Your task to perform on an android device: remove spam from my inbox in the gmail app Image 0: 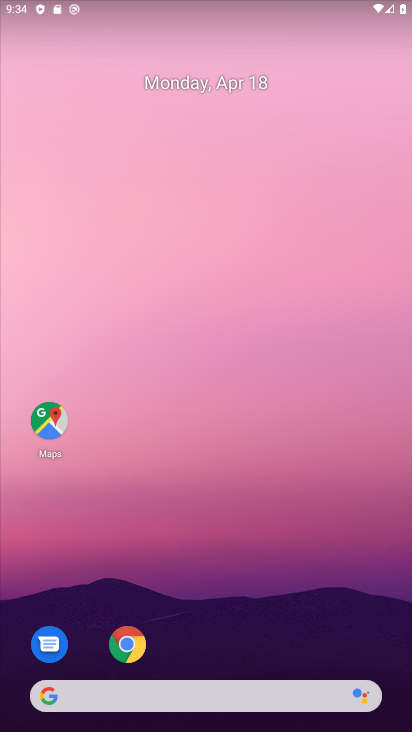
Step 0: drag from (211, 653) to (364, 40)
Your task to perform on an android device: remove spam from my inbox in the gmail app Image 1: 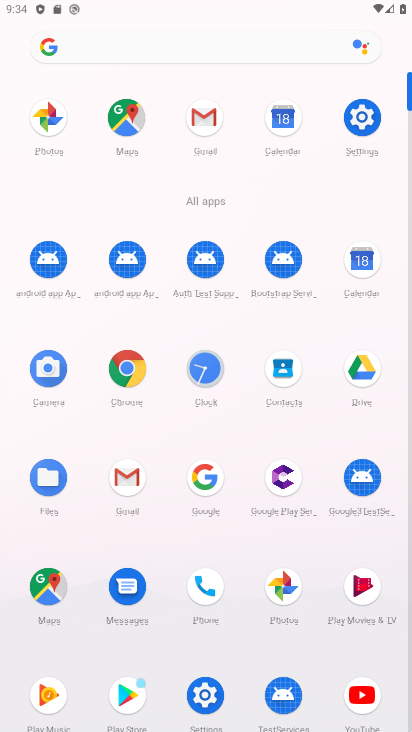
Step 1: click (122, 480)
Your task to perform on an android device: remove spam from my inbox in the gmail app Image 2: 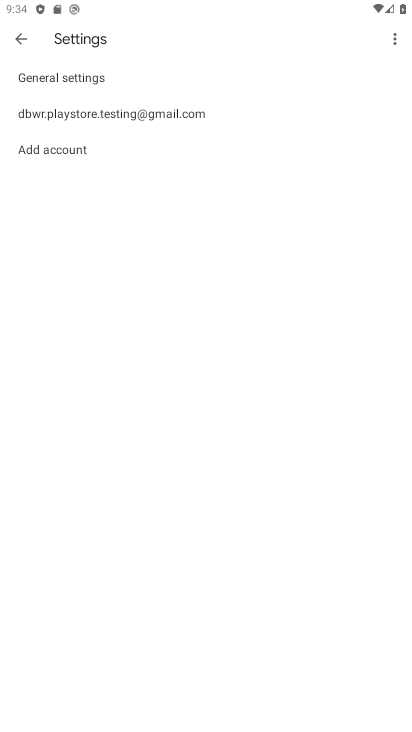
Step 2: click (21, 35)
Your task to perform on an android device: remove spam from my inbox in the gmail app Image 3: 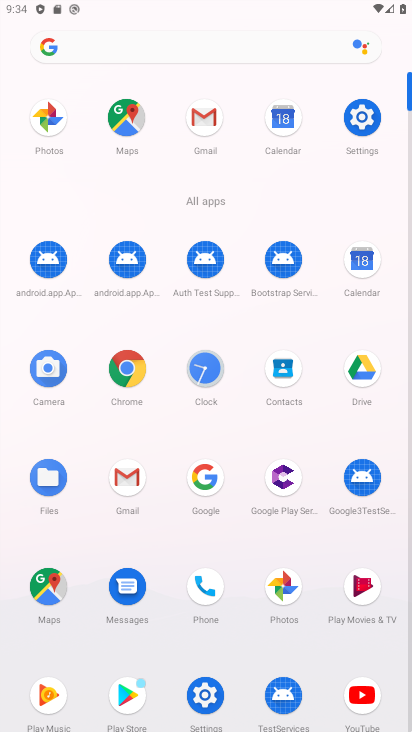
Step 3: click (128, 481)
Your task to perform on an android device: remove spam from my inbox in the gmail app Image 4: 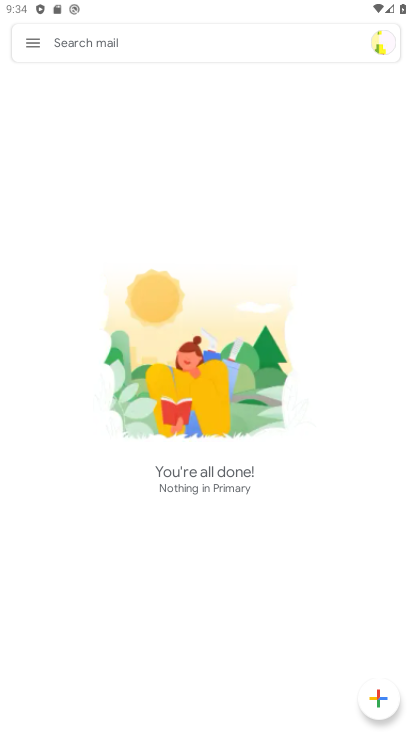
Step 4: click (36, 40)
Your task to perform on an android device: remove spam from my inbox in the gmail app Image 5: 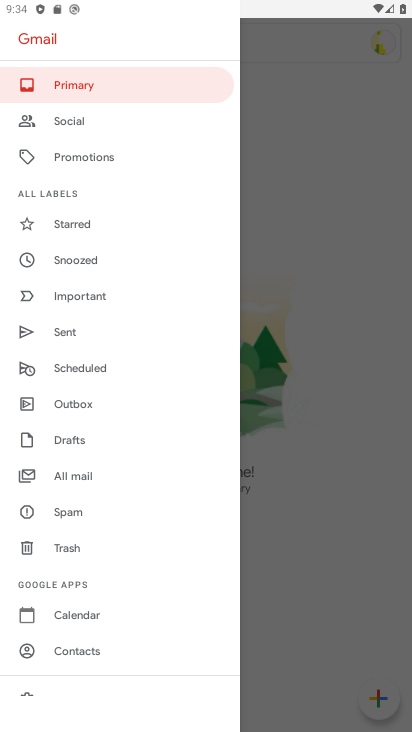
Step 5: click (75, 519)
Your task to perform on an android device: remove spam from my inbox in the gmail app Image 6: 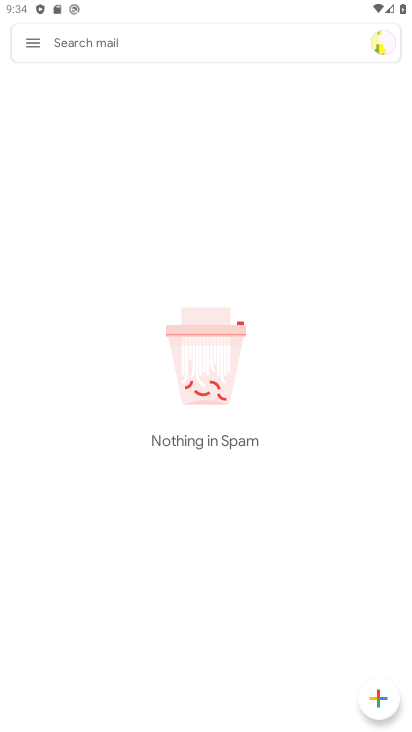
Step 6: task complete